Your task to perform on an android device: find snoozed emails in the gmail app Image 0: 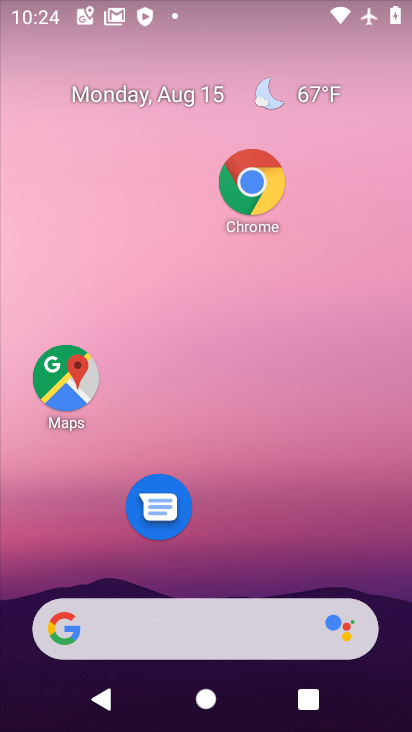
Step 0: drag from (275, 591) to (278, 86)
Your task to perform on an android device: find snoozed emails in the gmail app Image 1: 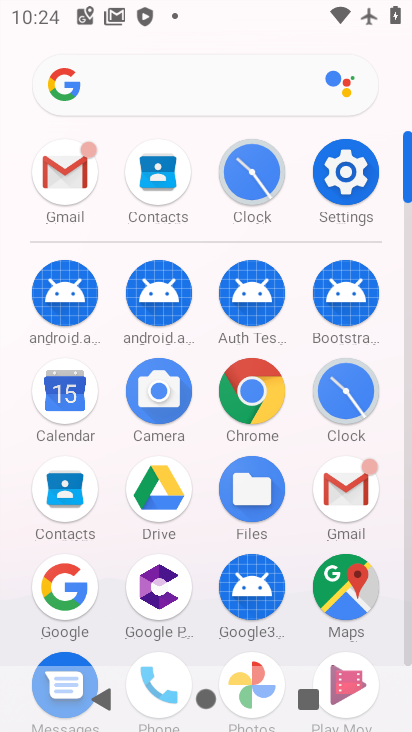
Step 1: click (333, 495)
Your task to perform on an android device: find snoozed emails in the gmail app Image 2: 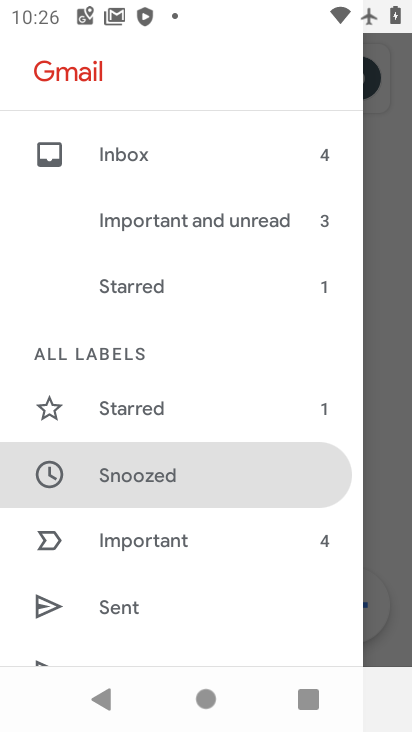
Step 2: task complete